Your task to perform on an android device: toggle improve location accuracy Image 0: 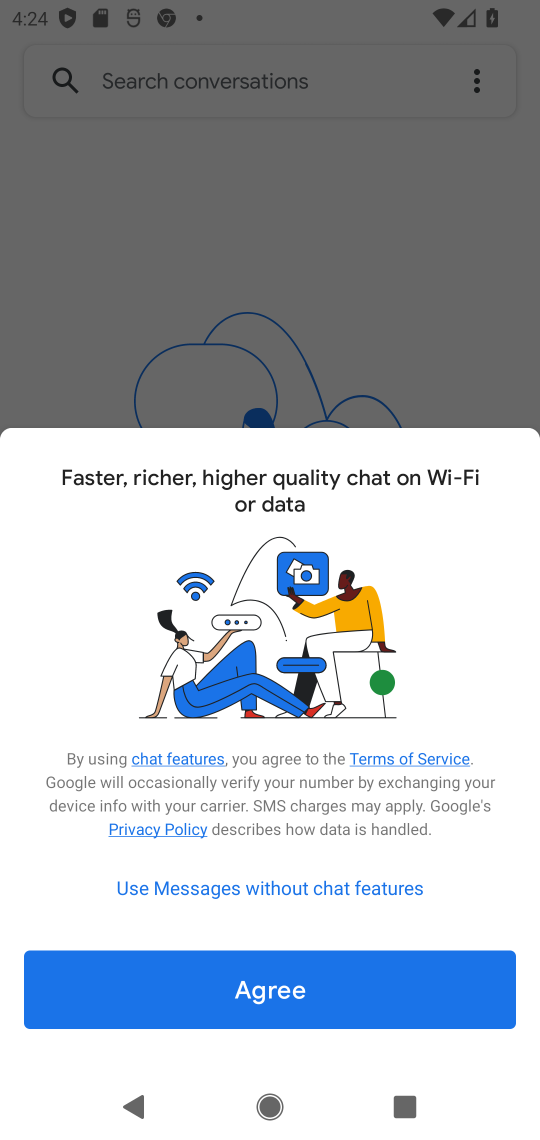
Step 0: press home button
Your task to perform on an android device: toggle improve location accuracy Image 1: 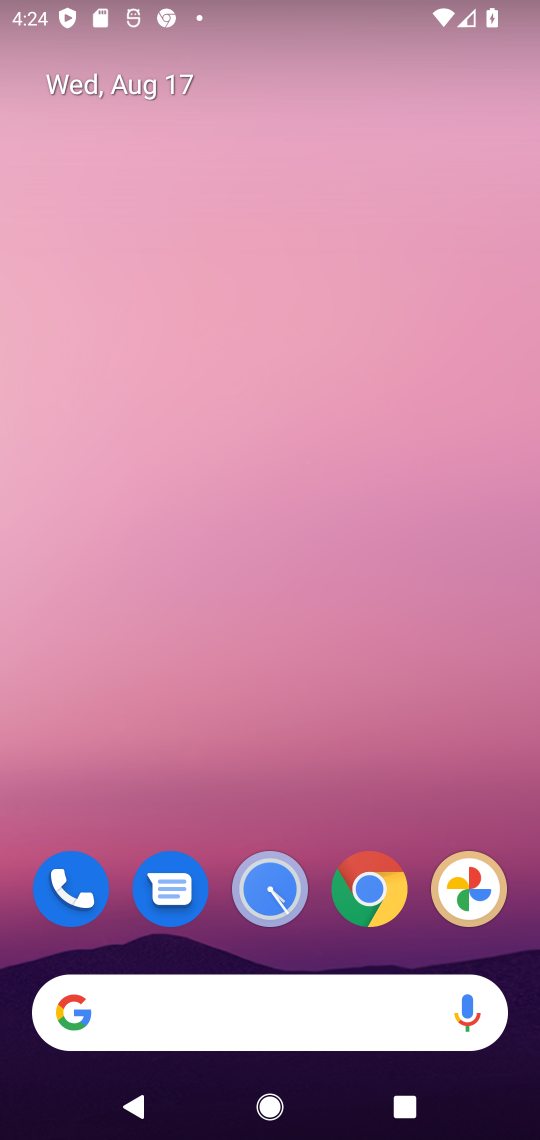
Step 1: drag from (288, 754) to (315, 103)
Your task to perform on an android device: toggle improve location accuracy Image 2: 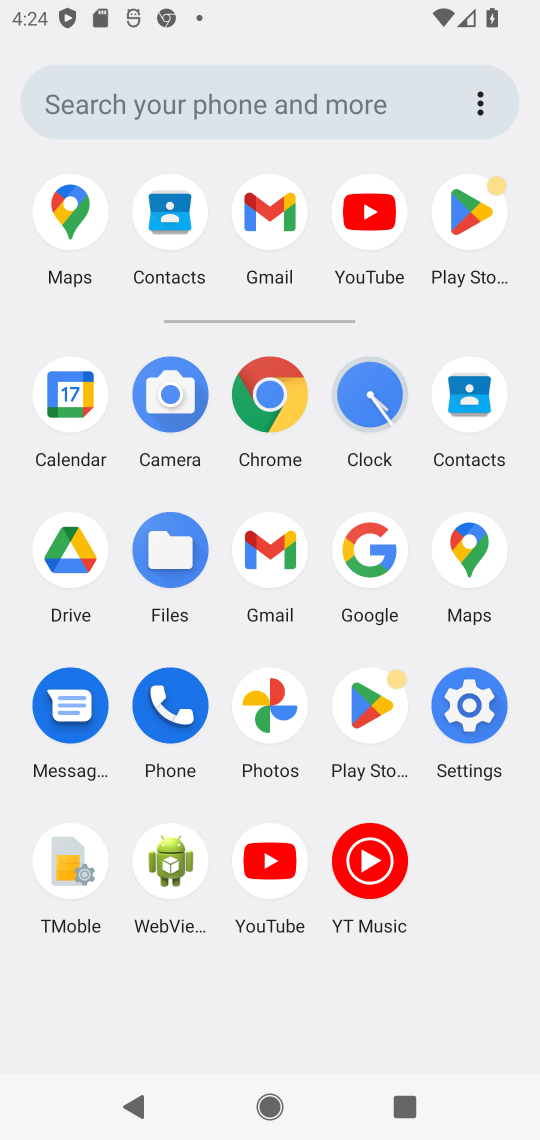
Step 2: click (472, 710)
Your task to perform on an android device: toggle improve location accuracy Image 3: 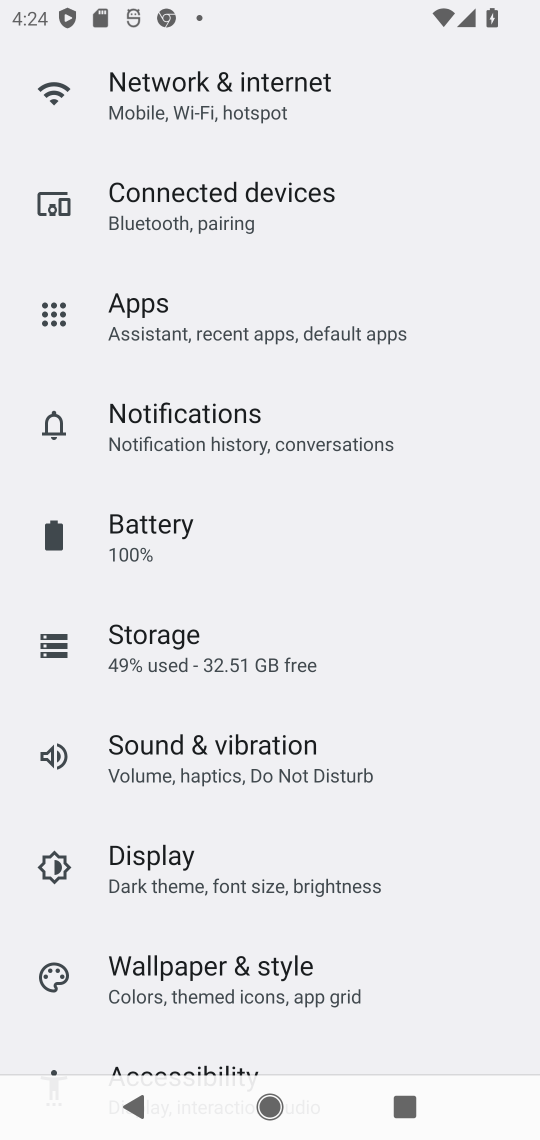
Step 3: drag from (371, 875) to (367, 229)
Your task to perform on an android device: toggle improve location accuracy Image 4: 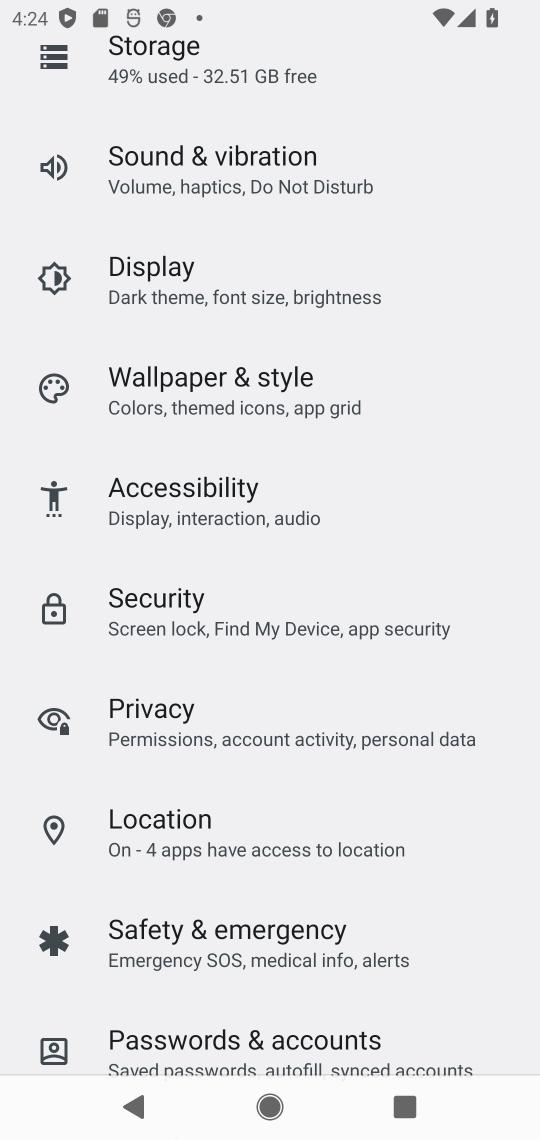
Step 4: click (174, 822)
Your task to perform on an android device: toggle improve location accuracy Image 5: 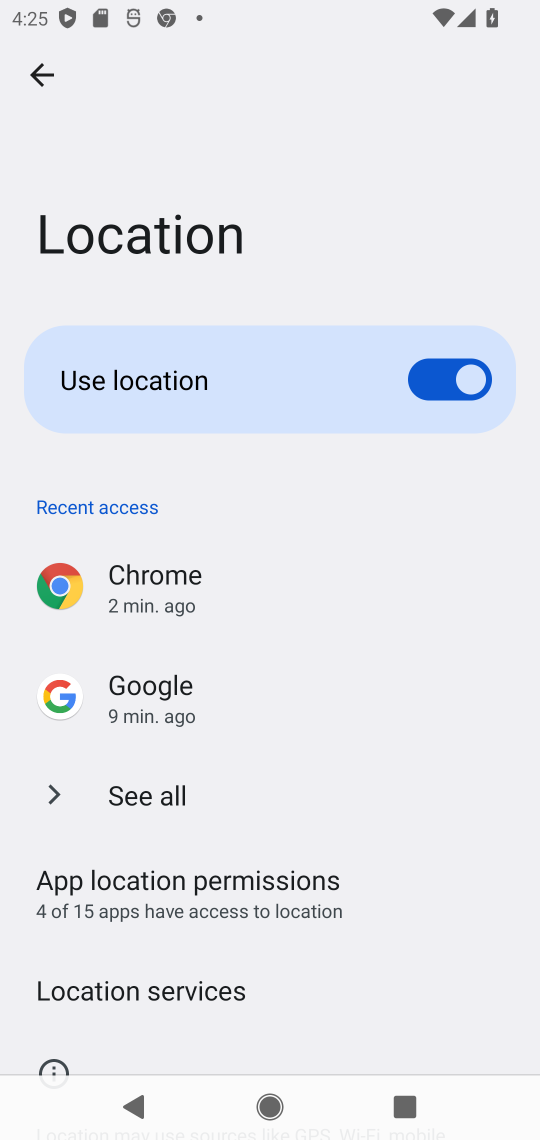
Step 5: drag from (363, 951) to (374, 473)
Your task to perform on an android device: toggle improve location accuracy Image 6: 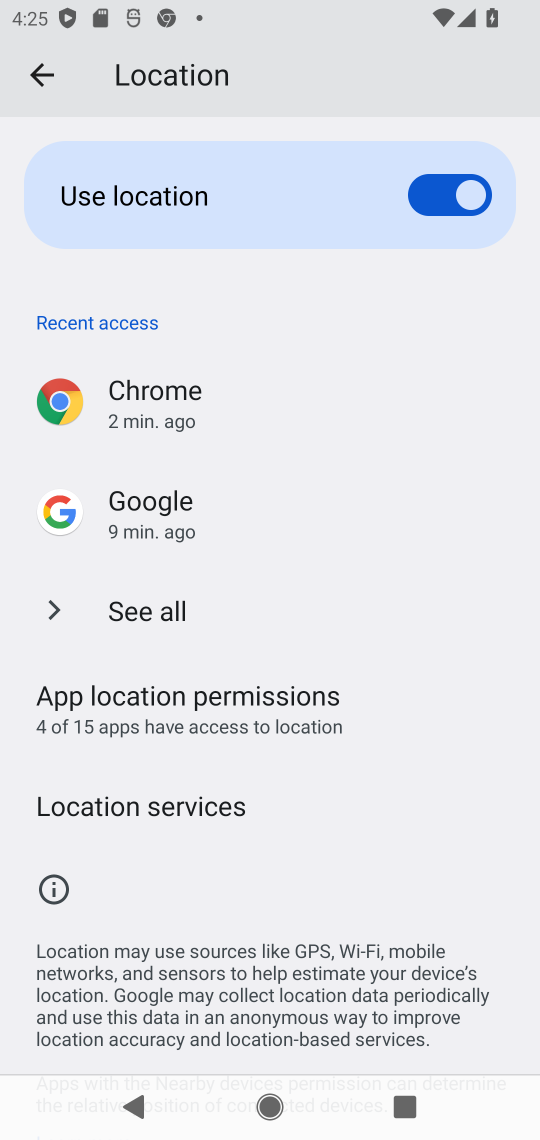
Step 6: click (135, 807)
Your task to perform on an android device: toggle improve location accuracy Image 7: 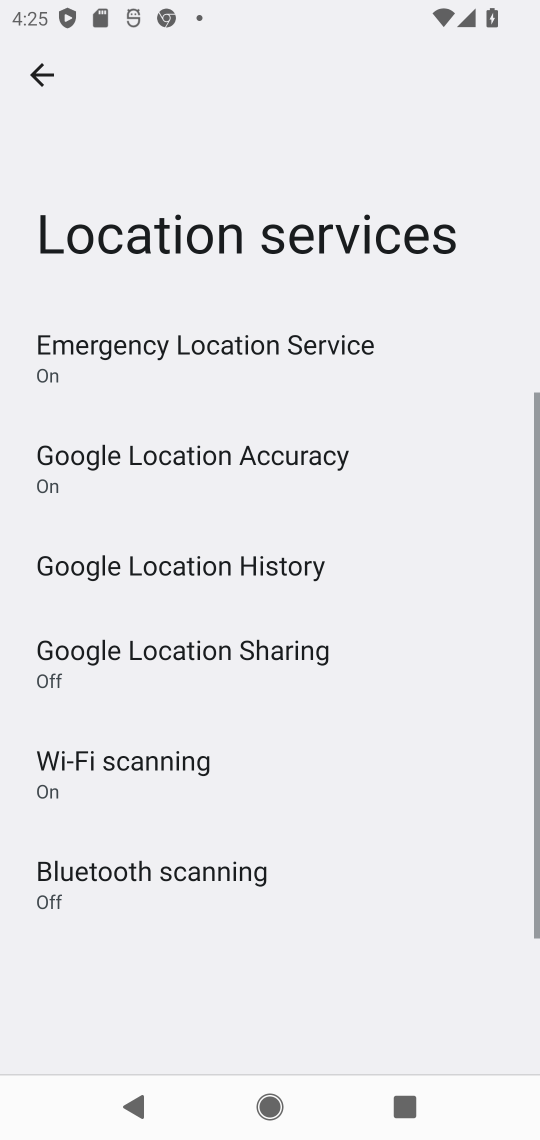
Step 7: click (171, 457)
Your task to perform on an android device: toggle improve location accuracy Image 8: 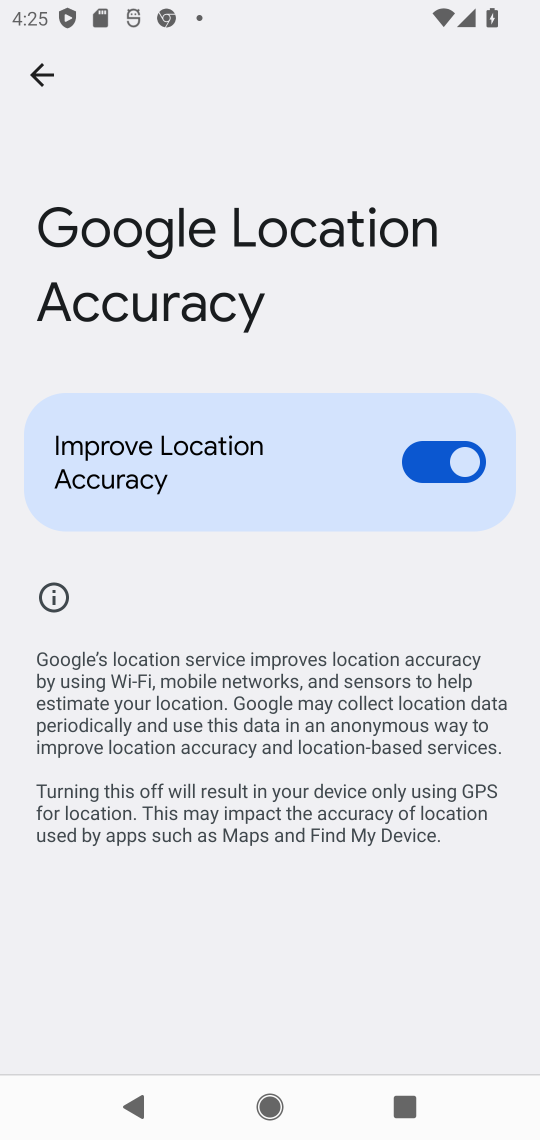
Step 8: click (434, 456)
Your task to perform on an android device: toggle improve location accuracy Image 9: 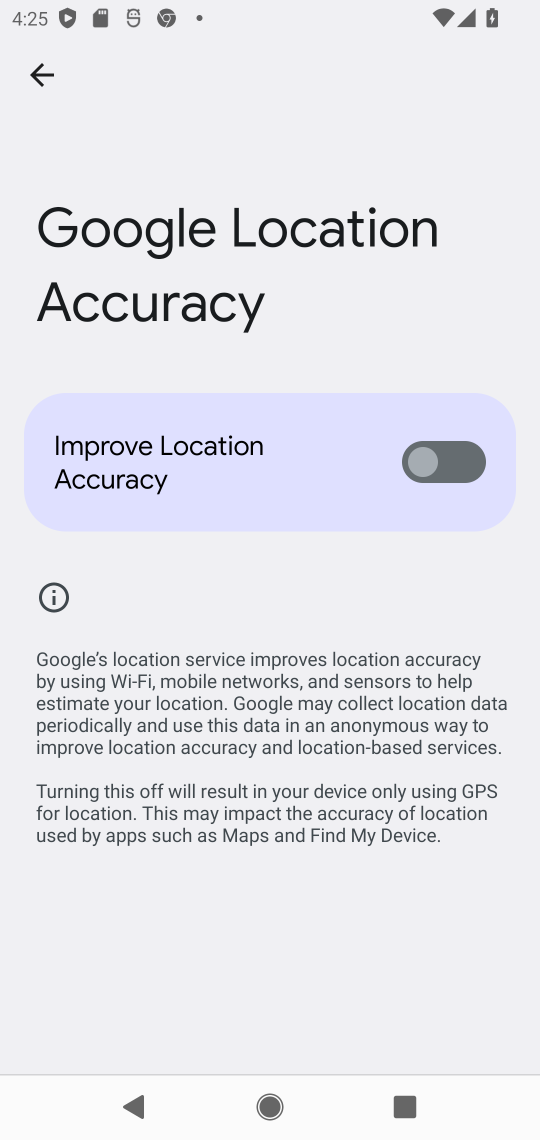
Step 9: task complete